Your task to perform on an android device: Play the last video I watched on Youtube Image 0: 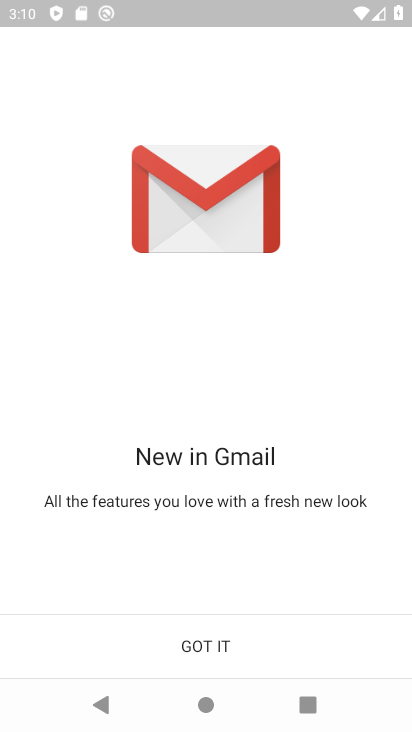
Step 0: click (210, 649)
Your task to perform on an android device: Play the last video I watched on Youtube Image 1: 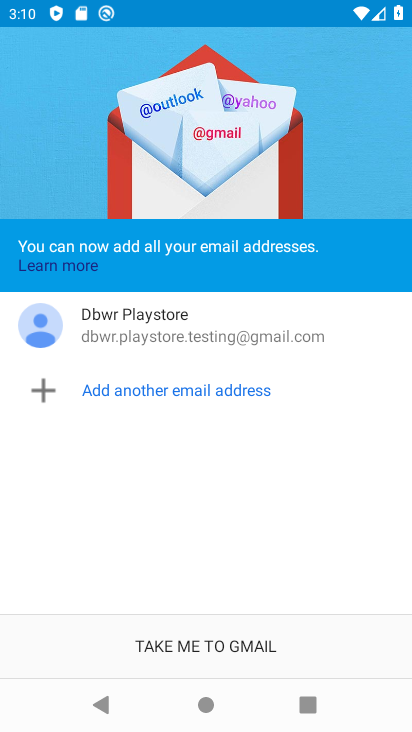
Step 1: press home button
Your task to perform on an android device: Play the last video I watched on Youtube Image 2: 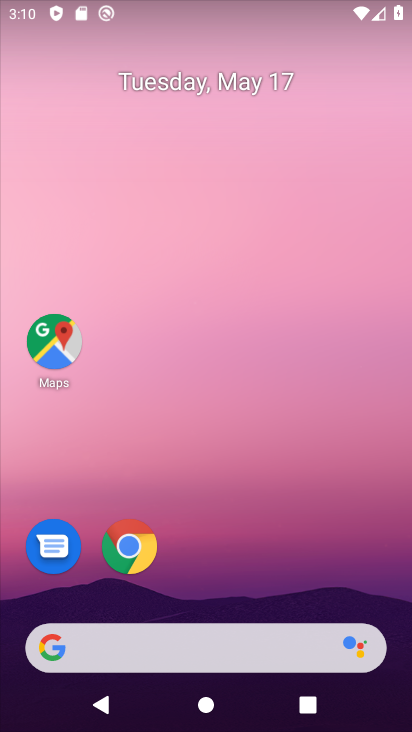
Step 2: drag from (183, 597) to (190, 193)
Your task to perform on an android device: Play the last video I watched on Youtube Image 3: 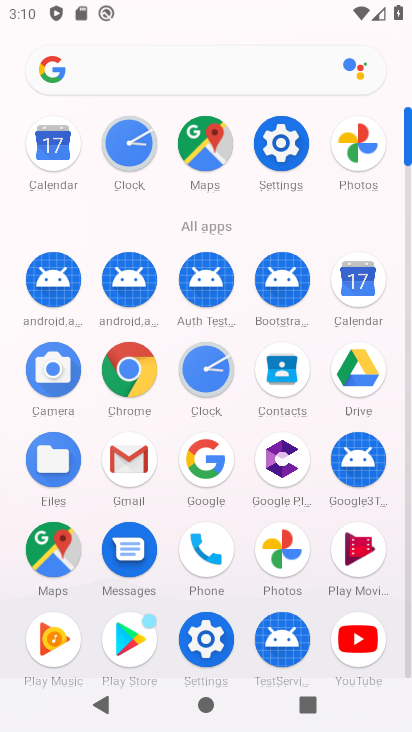
Step 3: click (366, 640)
Your task to perform on an android device: Play the last video I watched on Youtube Image 4: 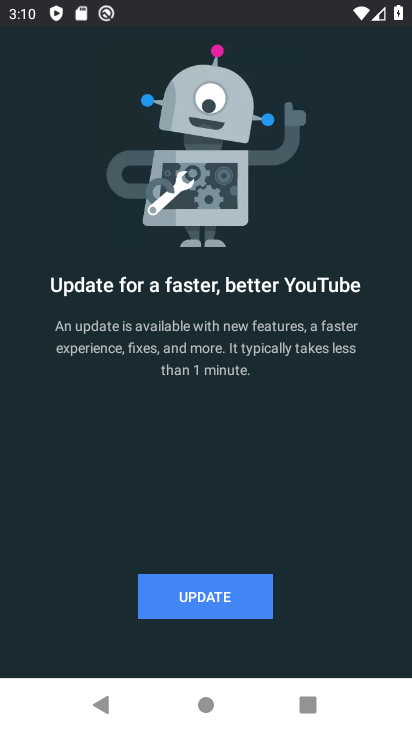
Step 4: click (206, 586)
Your task to perform on an android device: Play the last video I watched on Youtube Image 5: 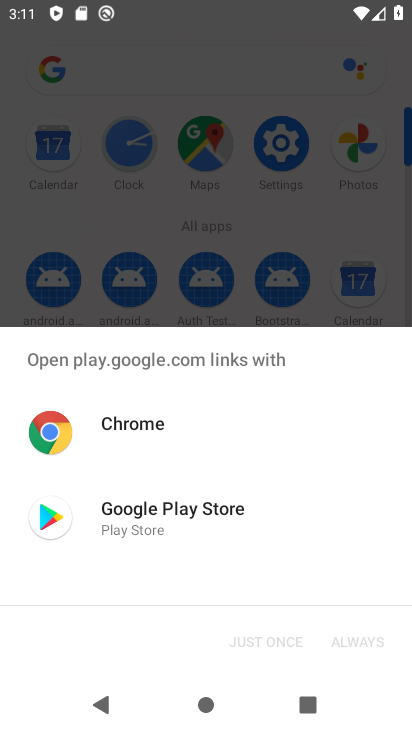
Step 5: click (254, 534)
Your task to perform on an android device: Play the last video I watched on Youtube Image 6: 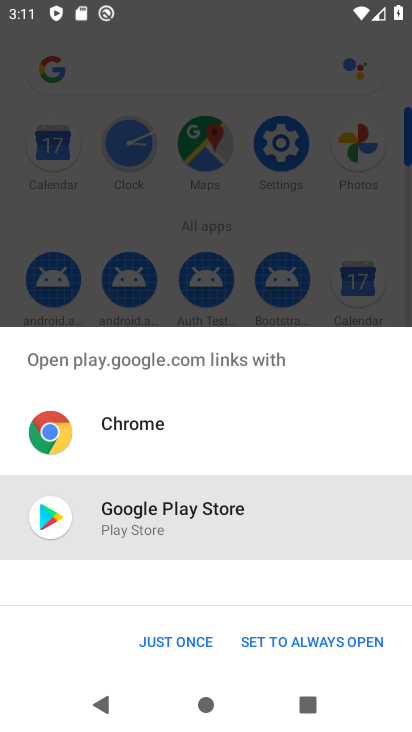
Step 6: click (172, 638)
Your task to perform on an android device: Play the last video I watched on Youtube Image 7: 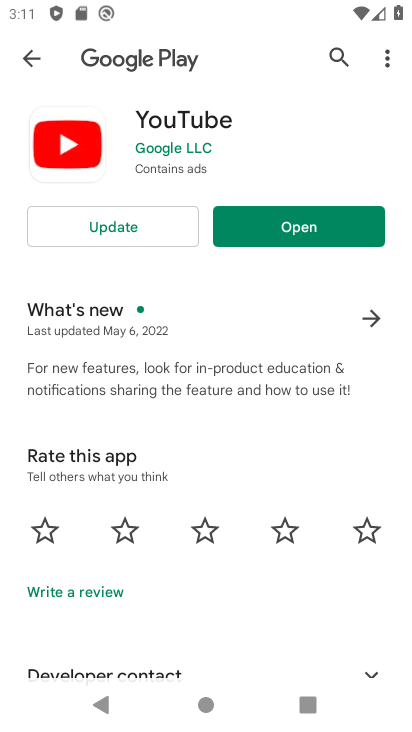
Step 7: click (292, 227)
Your task to perform on an android device: Play the last video I watched on Youtube Image 8: 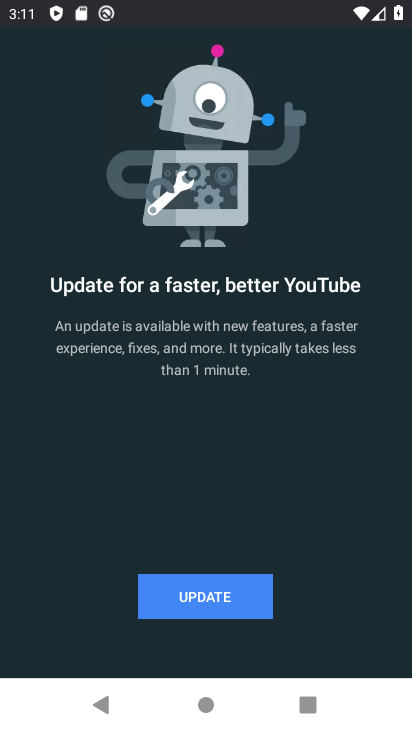
Step 8: click (246, 582)
Your task to perform on an android device: Play the last video I watched on Youtube Image 9: 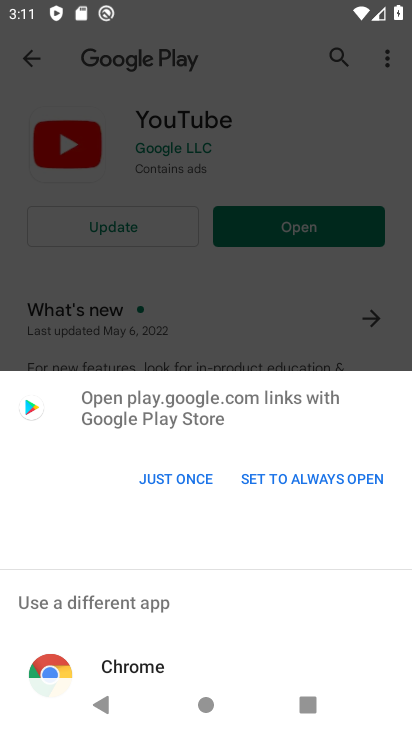
Step 9: click (166, 475)
Your task to perform on an android device: Play the last video I watched on Youtube Image 10: 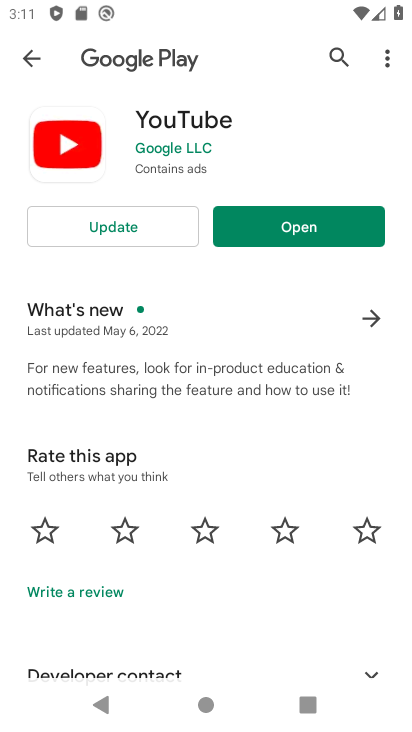
Step 10: click (116, 242)
Your task to perform on an android device: Play the last video I watched on Youtube Image 11: 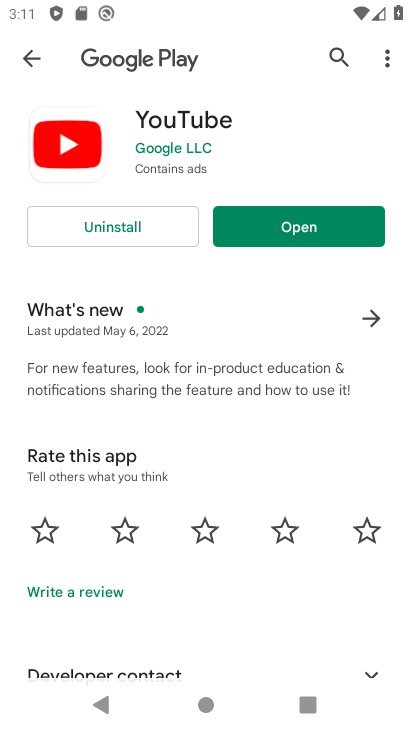
Step 11: click (337, 232)
Your task to perform on an android device: Play the last video I watched on Youtube Image 12: 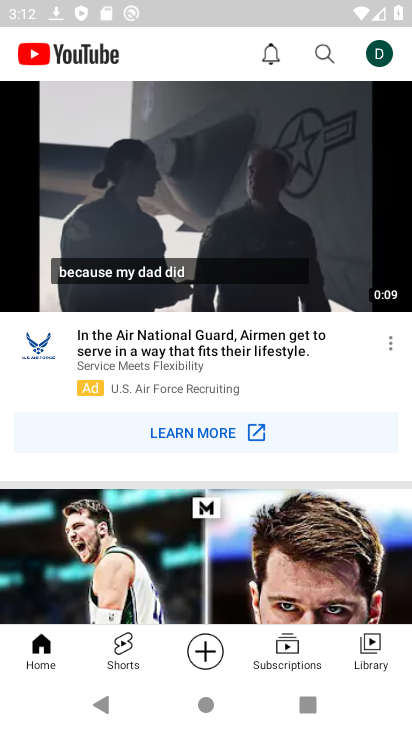
Step 12: click (365, 659)
Your task to perform on an android device: Play the last video I watched on Youtube Image 13: 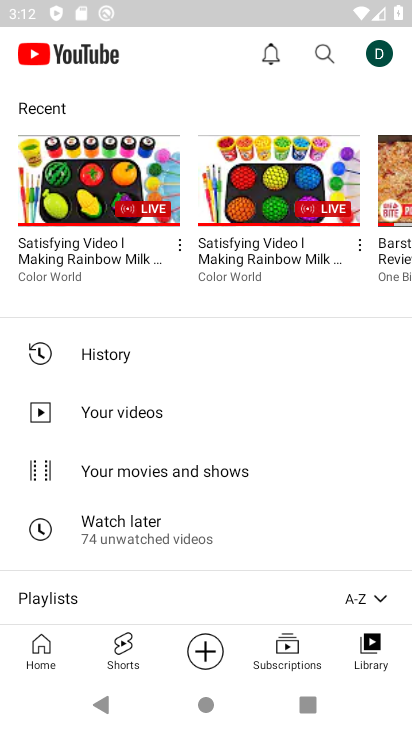
Step 13: click (123, 368)
Your task to perform on an android device: Play the last video I watched on Youtube Image 14: 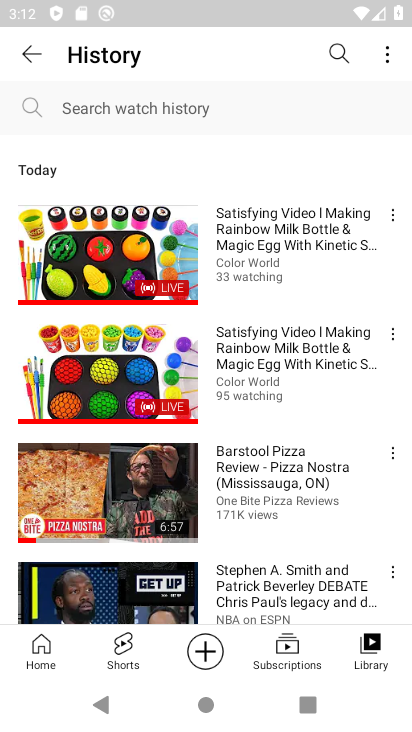
Step 14: task complete